Your task to perform on an android device: Search for Mexican restaurants on Maps Image 0: 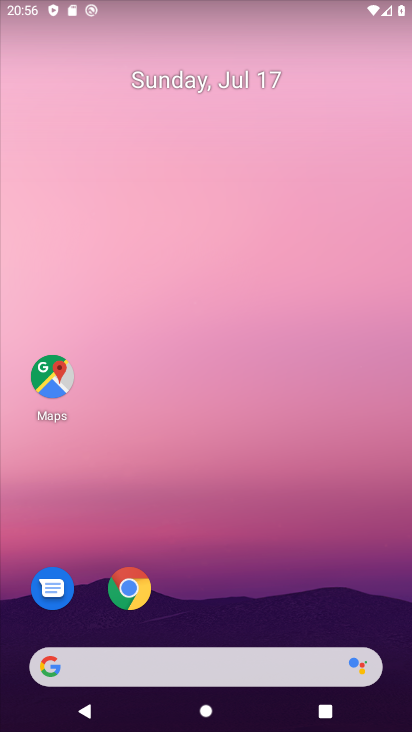
Step 0: press home button
Your task to perform on an android device: Search for Mexican restaurants on Maps Image 1: 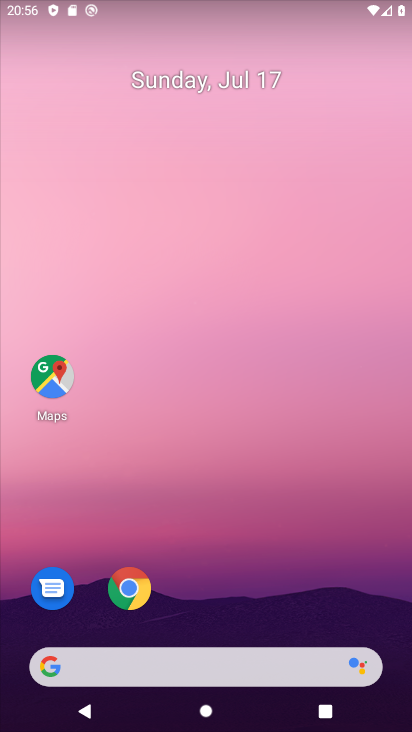
Step 1: drag from (299, 543) to (340, 36)
Your task to perform on an android device: Search for Mexican restaurants on Maps Image 2: 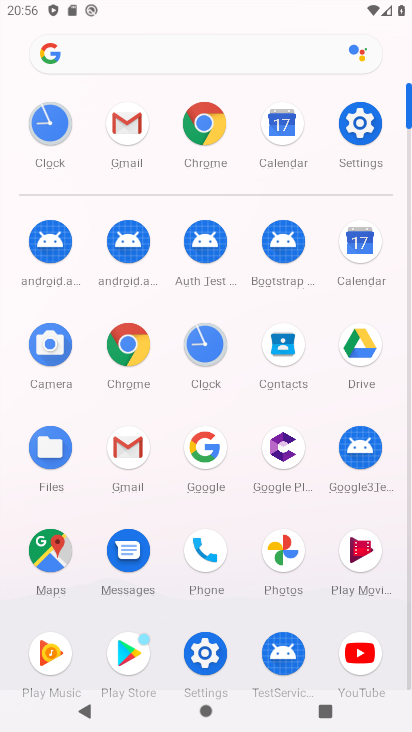
Step 2: click (40, 560)
Your task to perform on an android device: Search for Mexican restaurants on Maps Image 3: 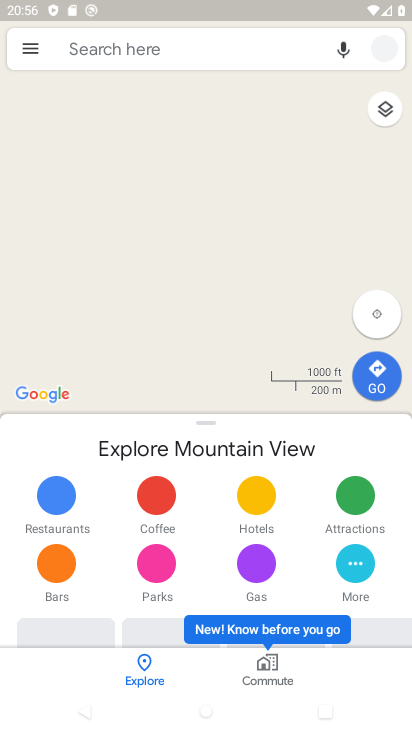
Step 3: click (219, 53)
Your task to perform on an android device: Search for Mexican restaurants on Maps Image 4: 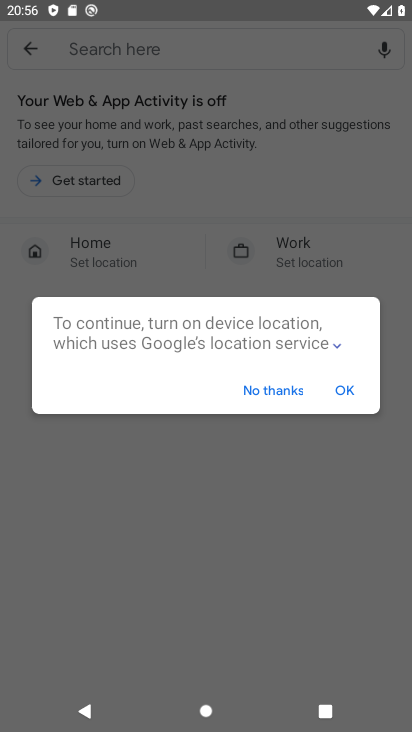
Step 4: click (283, 383)
Your task to perform on an android device: Search for Mexican restaurants on Maps Image 5: 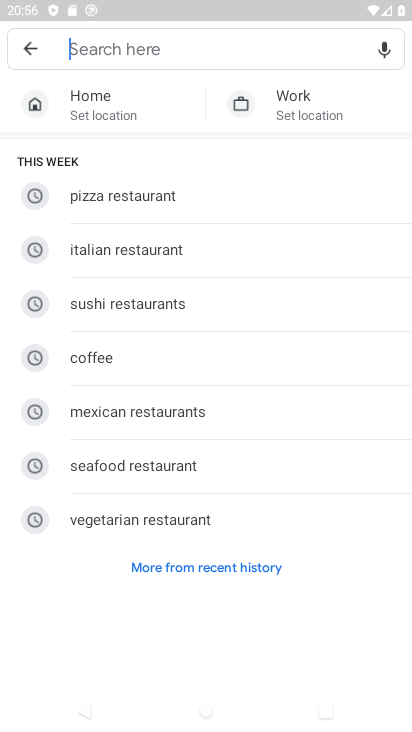
Step 5: click (150, 42)
Your task to perform on an android device: Search for Mexican restaurants on Maps Image 6: 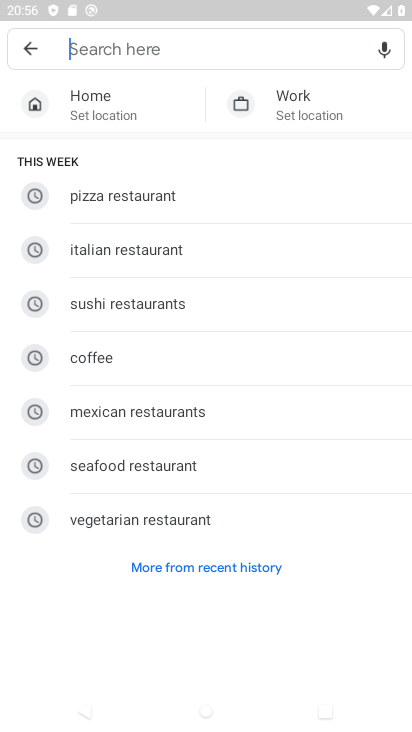
Step 6: click (150, 42)
Your task to perform on an android device: Search for Mexican restaurants on Maps Image 7: 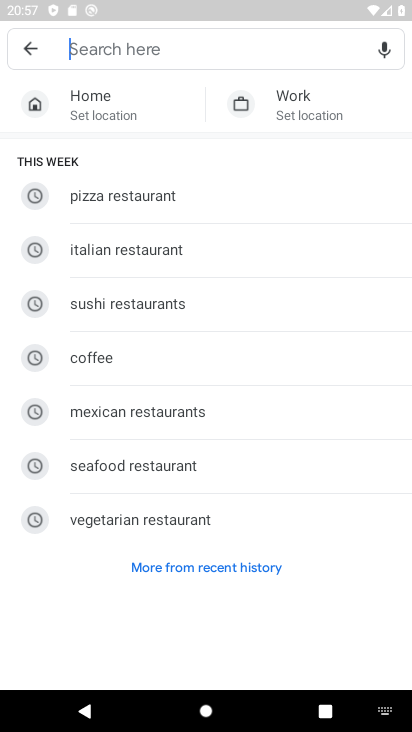
Step 7: type "Mexican restaurants"
Your task to perform on an android device: Search for Mexican restaurants on Maps Image 8: 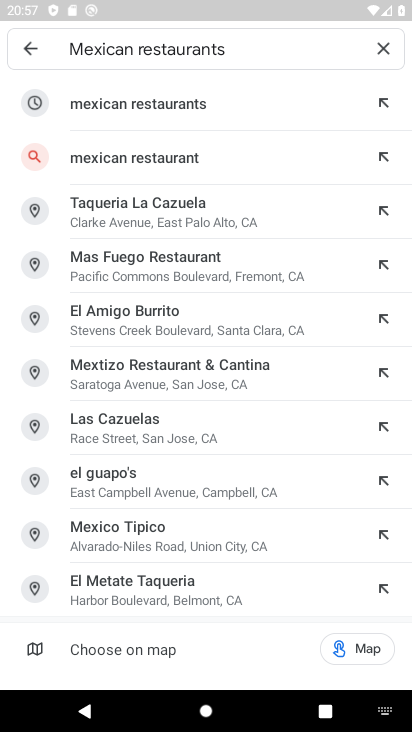
Step 8: click (172, 99)
Your task to perform on an android device: Search for Mexican restaurants on Maps Image 9: 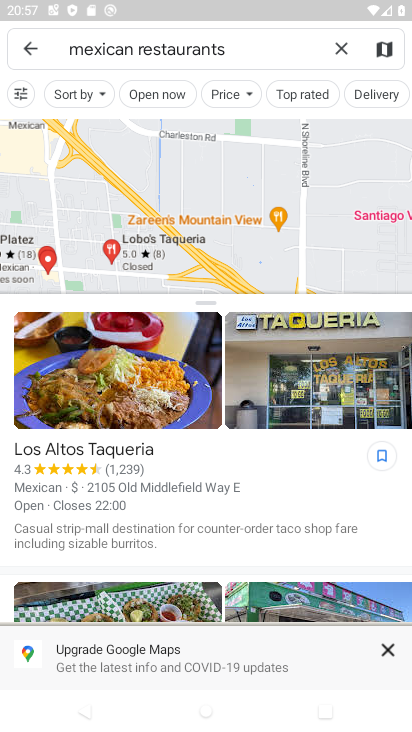
Step 9: task complete